Your task to perform on an android device: open a bookmark in the chrome app Image 0: 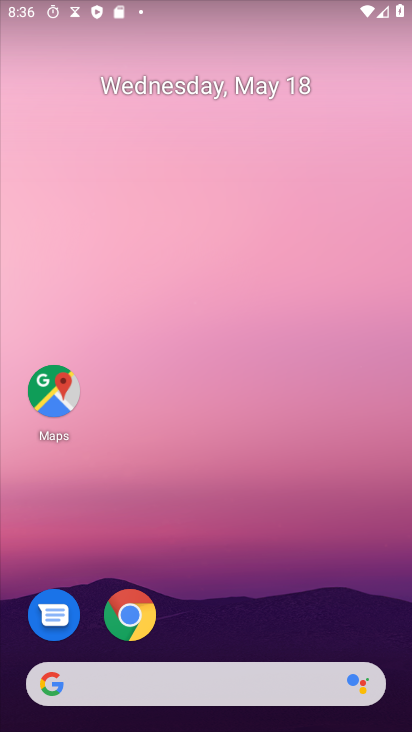
Step 0: click (134, 610)
Your task to perform on an android device: open a bookmark in the chrome app Image 1: 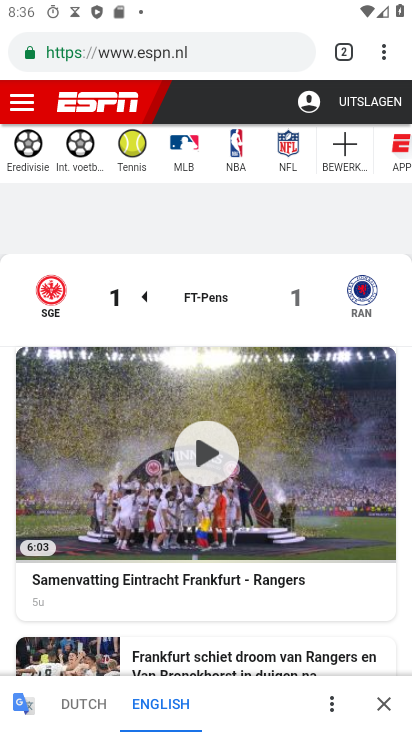
Step 1: click (389, 49)
Your task to perform on an android device: open a bookmark in the chrome app Image 2: 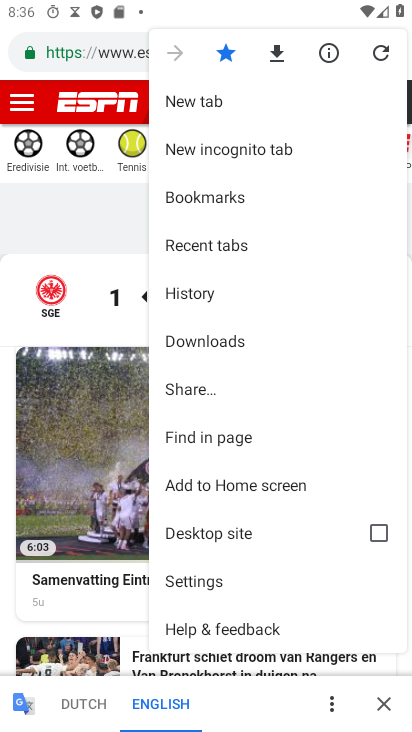
Step 2: click (184, 192)
Your task to perform on an android device: open a bookmark in the chrome app Image 3: 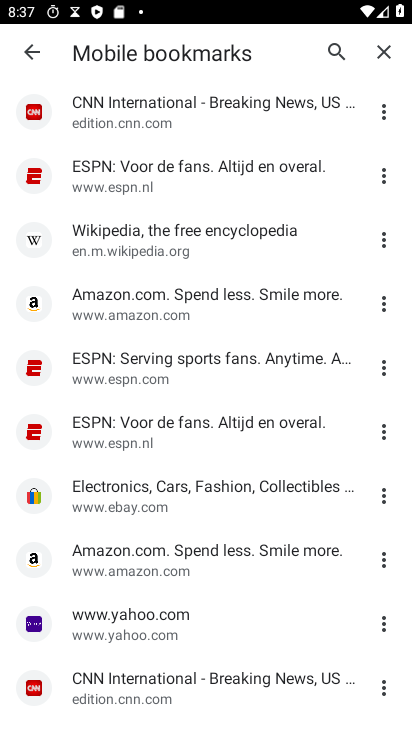
Step 3: click (129, 240)
Your task to perform on an android device: open a bookmark in the chrome app Image 4: 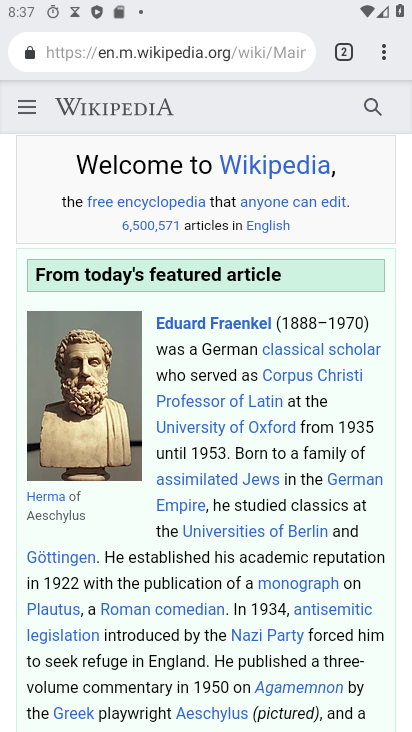
Step 4: task complete